Your task to perform on an android device: set the timer Image 0: 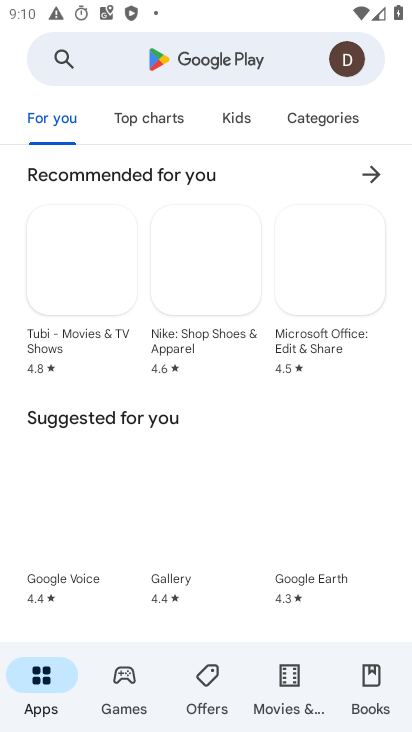
Step 0: press home button
Your task to perform on an android device: set the timer Image 1: 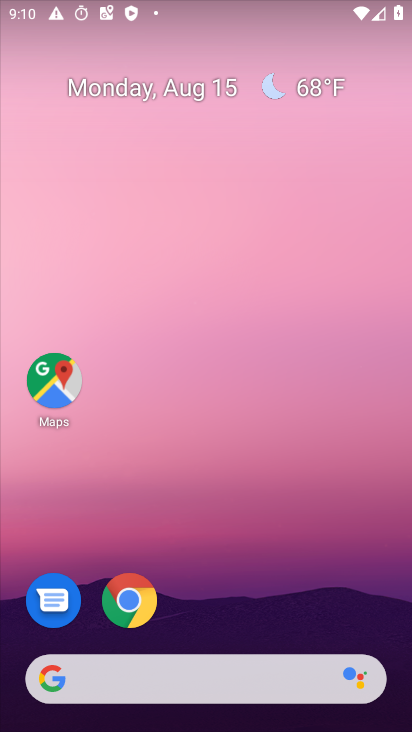
Step 1: drag from (211, 642) to (157, 95)
Your task to perform on an android device: set the timer Image 2: 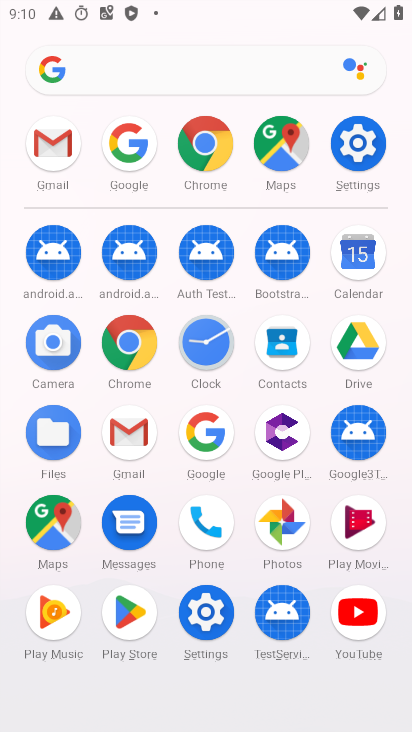
Step 2: click (201, 353)
Your task to perform on an android device: set the timer Image 3: 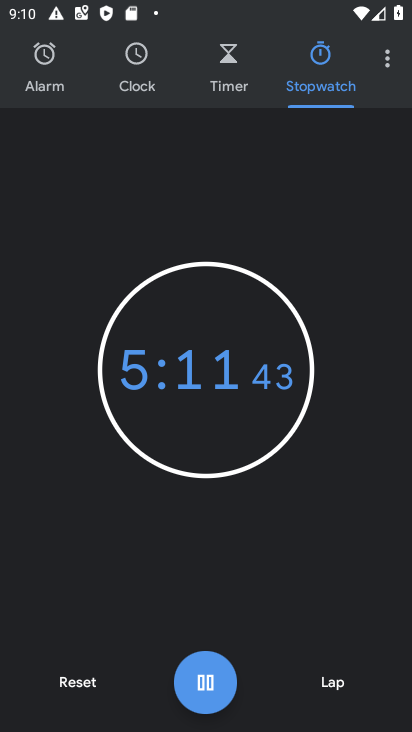
Step 3: click (219, 66)
Your task to perform on an android device: set the timer Image 4: 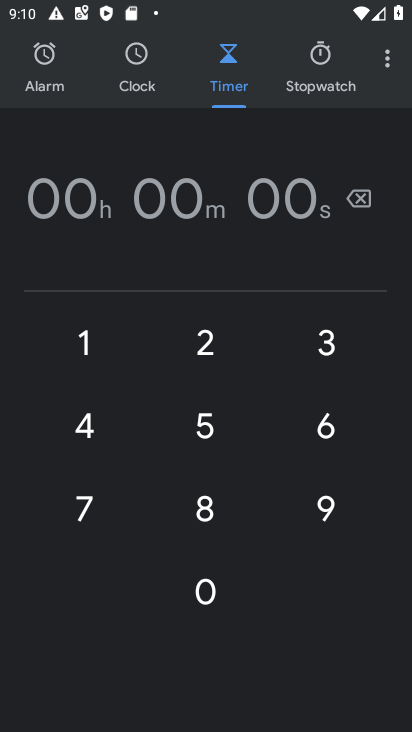
Step 4: click (193, 345)
Your task to perform on an android device: set the timer Image 5: 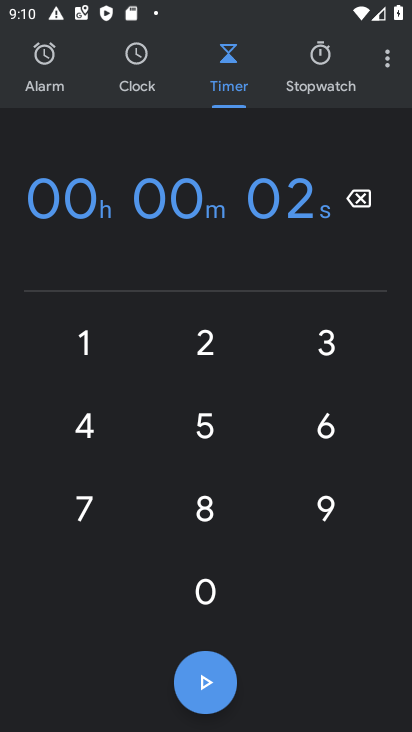
Step 5: click (204, 425)
Your task to perform on an android device: set the timer Image 6: 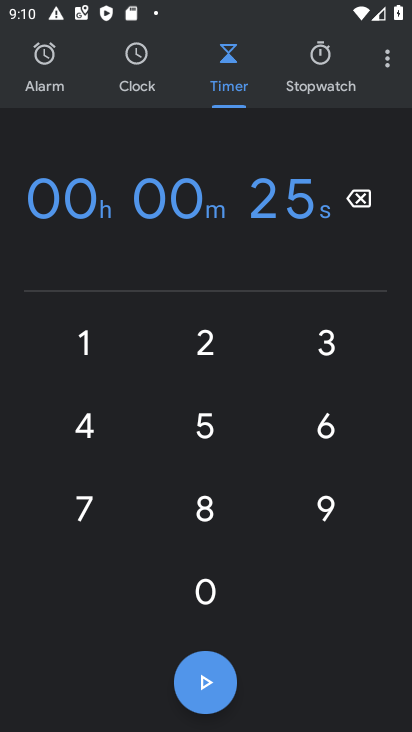
Step 6: click (200, 511)
Your task to perform on an android device: set the timer Image 7: 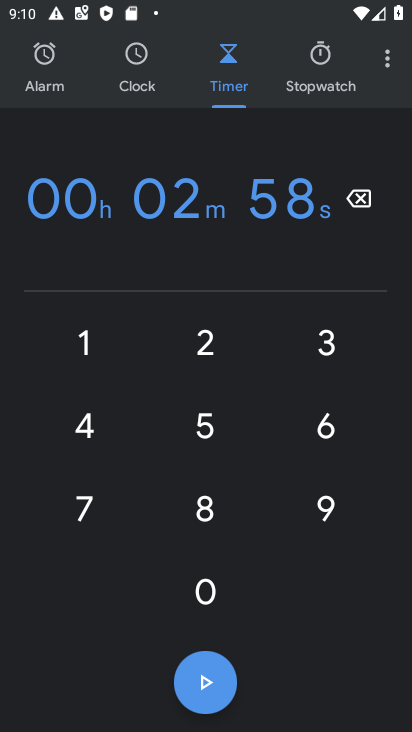
Step 7: click (205, 681)
Your task to perform on an android device: set the timer Image 8: 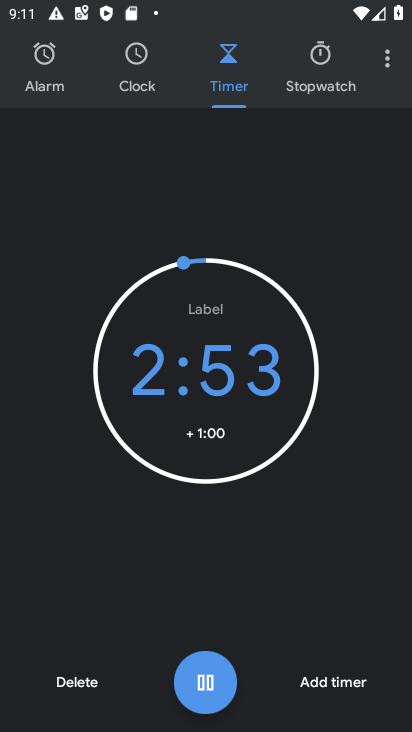
Step 8: task complete